Your task to perform on an android device: open app "WhatsApp Messenger" Image 0: 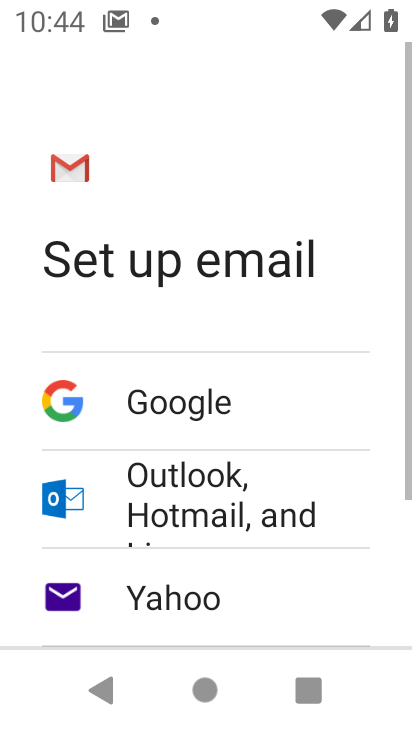
Step 0: press home button
Your task to perform on an android device: open app "WhatsApp Messenger" Image 1: 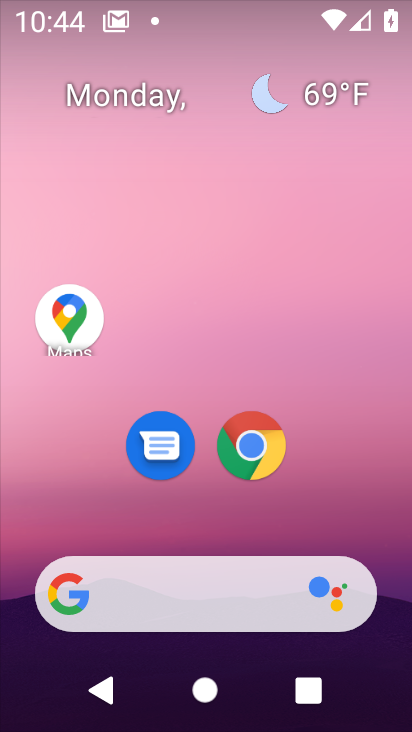
Step 1: drag from (204, 590) to (188, 75)
Your task to perform on an android device: open app "WhatsApp Messenger" Image 2: 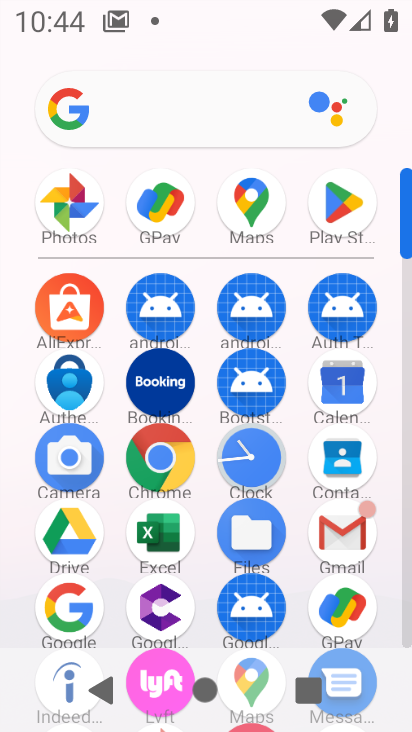
Step 2: click (344, 221)
Your task to perform on an android device: open app "WhatsApp Messenger" Image 3: 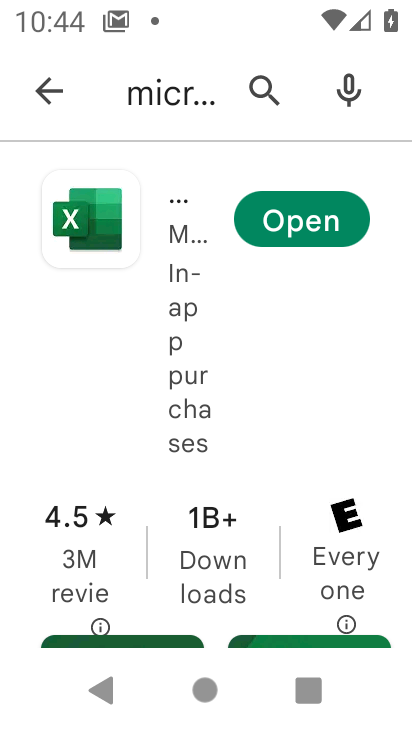
Step 3: click (38, 101)
Your task to perform on an android device: open app "WhatsApp Messenger" Image 4: 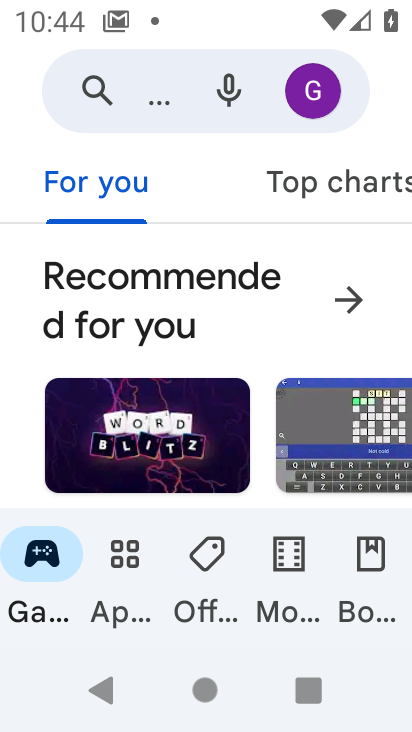
Step 4: click (106, 96)
Your task to perform on an android device: open app "WhatsApp Messenger" Image 5: 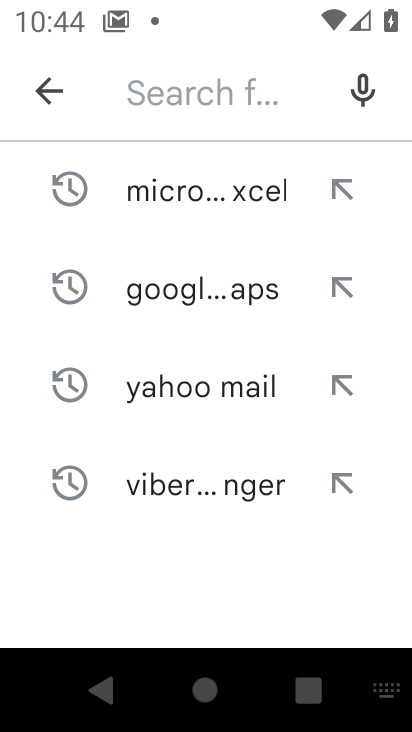
Step 5: type "WhatsApp Messenger"
Your task to perform on an android device: open app "WhatsApp Messenger" Image 6: 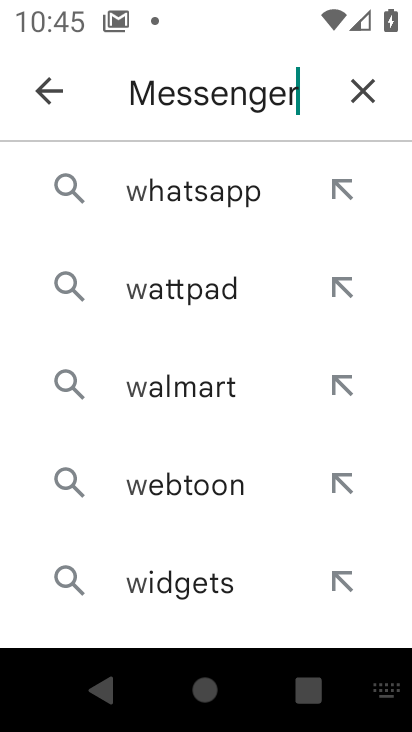
Step 6: type ""
Your task to perform on an android device: open app "WhatsApp Messenger" Image 7: 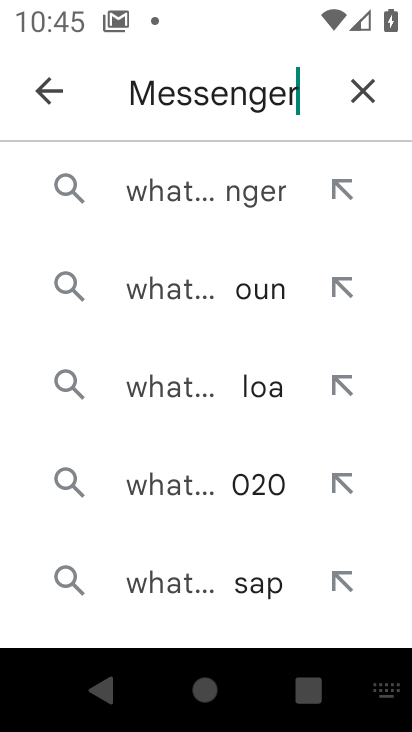
Step 7: click (247, 197)
Your task to perform on an android device: open app "WhatsApp Messenger" Image 8: 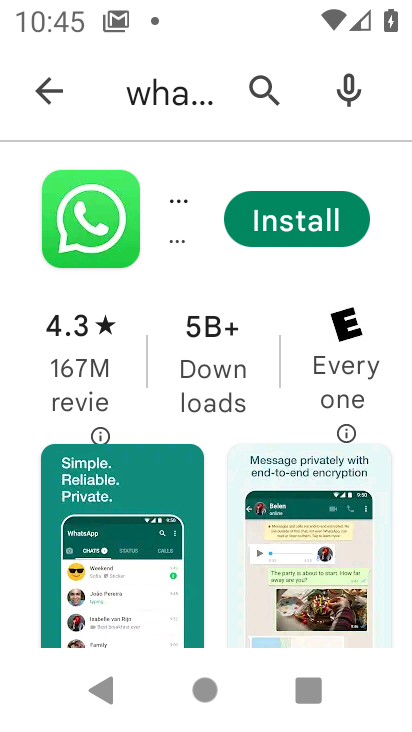
Step 8: task complete